Your task to perform on an android device: Open internet settings Image 0: 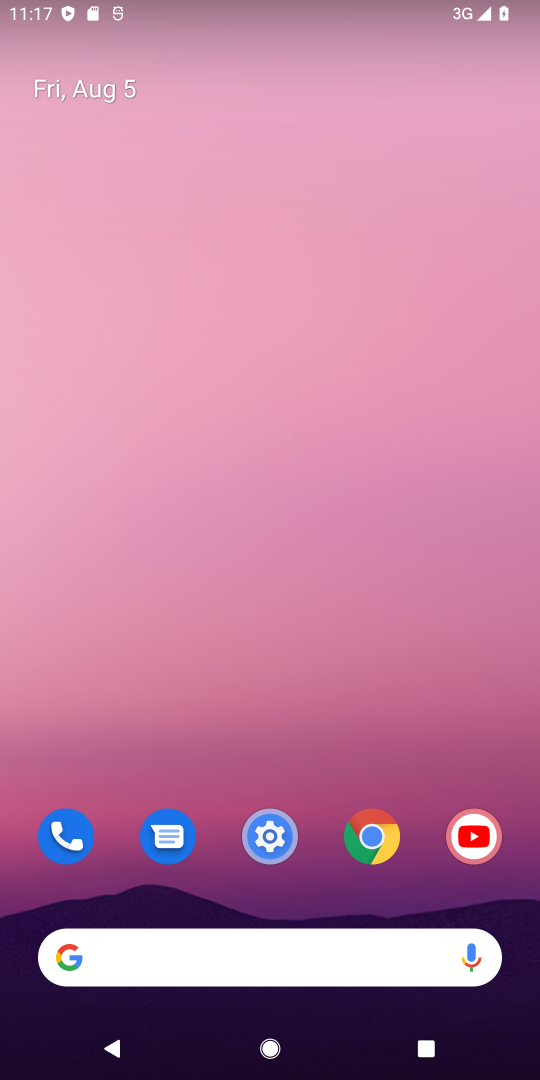
Step 0: drag from (312, 872) to (331, 175)
Your task to perform on an android device: Open internet settings Image 1: 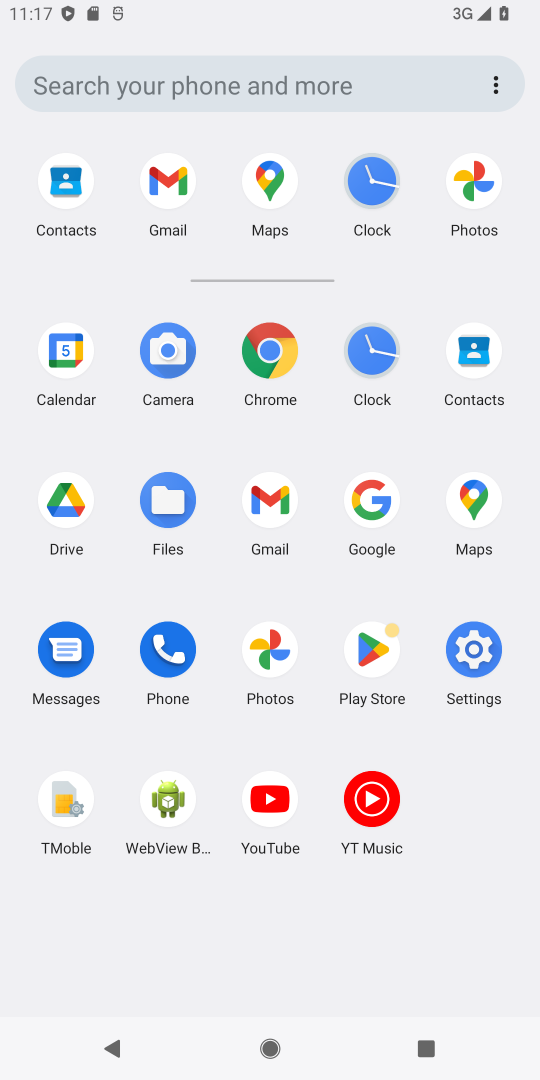
Step 1: click (481, 647)
Your task to perform on an android device: Open internet settings Image 2: 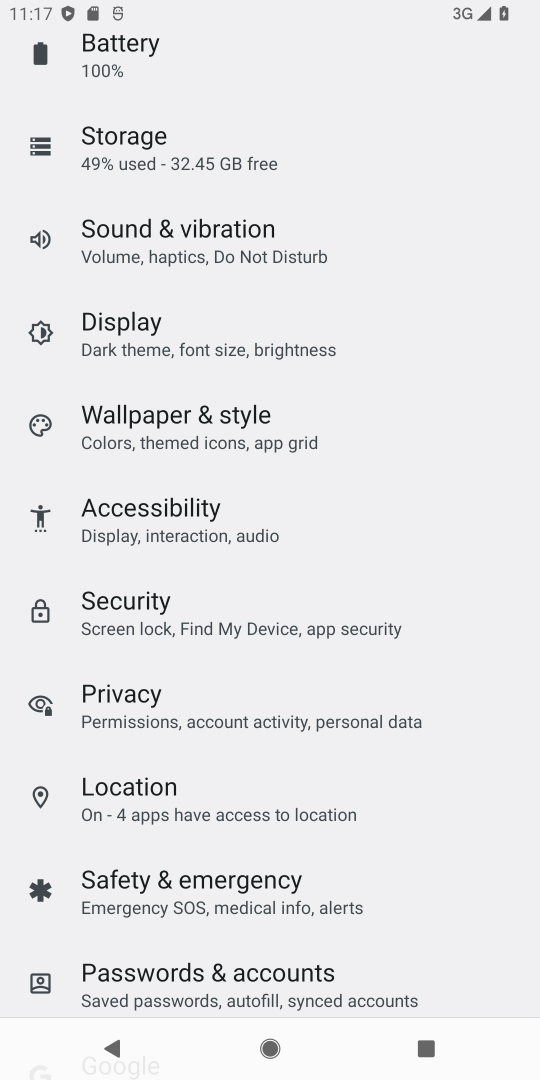
Step 2: drag from (313, 160) to (277, 732)
Your task to perform on an android device: Open internet settings Image 3: 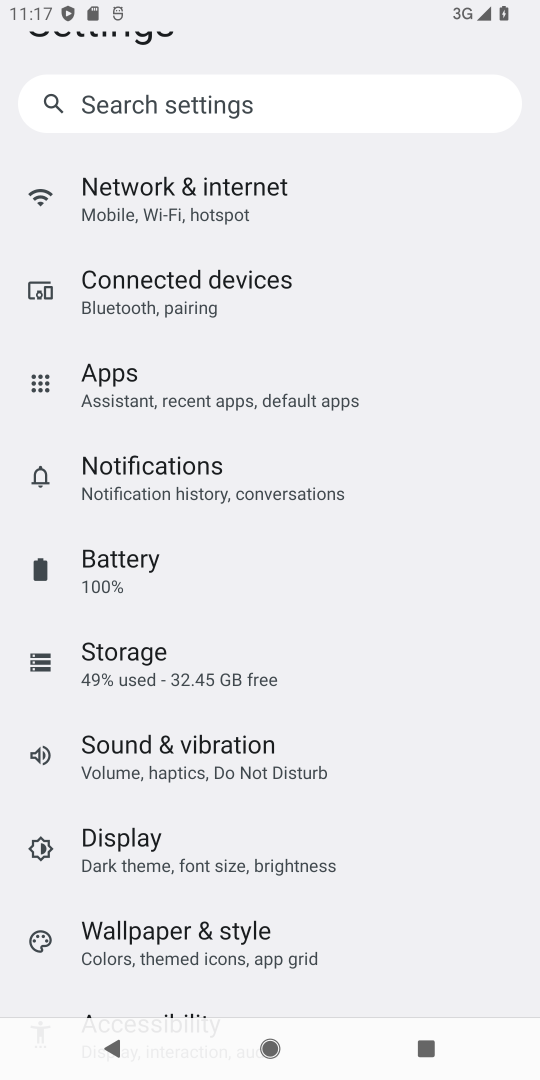
Step 3: click (187, 198)
Your task to perform on an android device: Open internet settings Image 4: 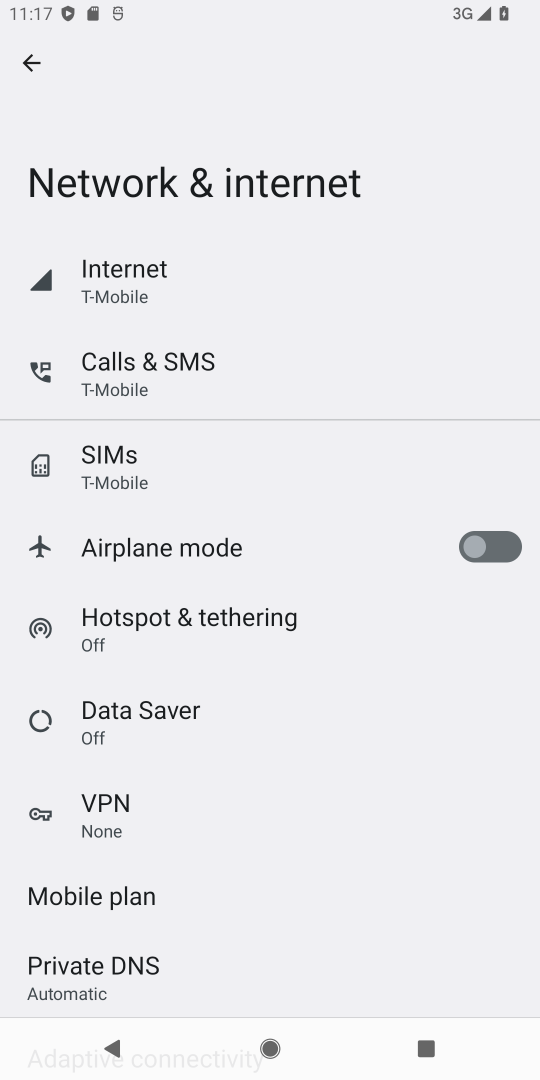
Step 4: click (139, 278)
Your task to perform on an android device: Open internet settings Image 5: 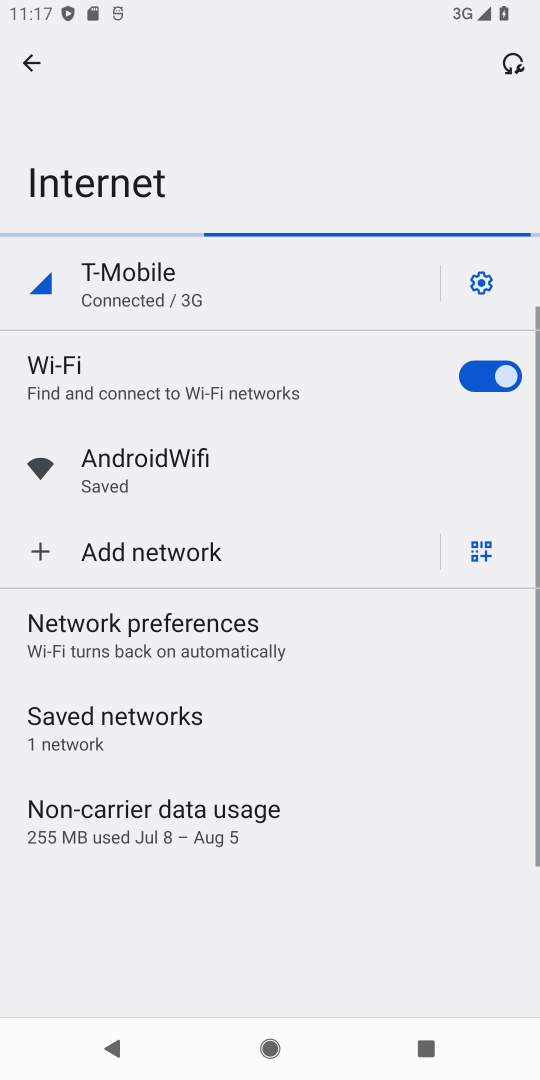
Step 5: task complete